Your task to perform on an android device: add a contact Image 0: 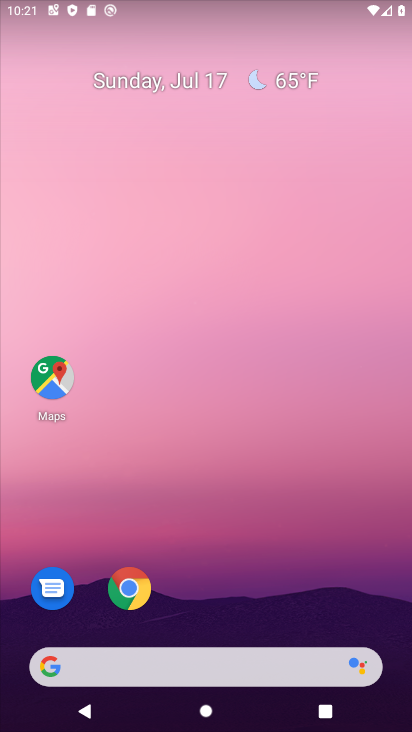
Step 0: drag from (238, 566) to (213, 118)
Your task to perform on an android device: add a contact Image 1: 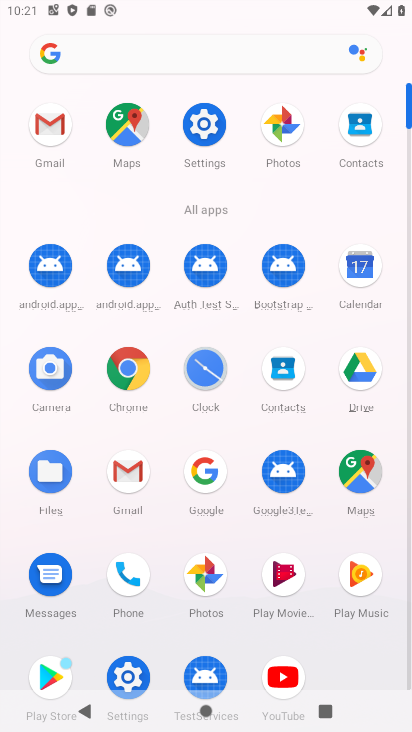
Step 1: click (276, 366)
Your task to perform on an android device: add a contact Image 2: 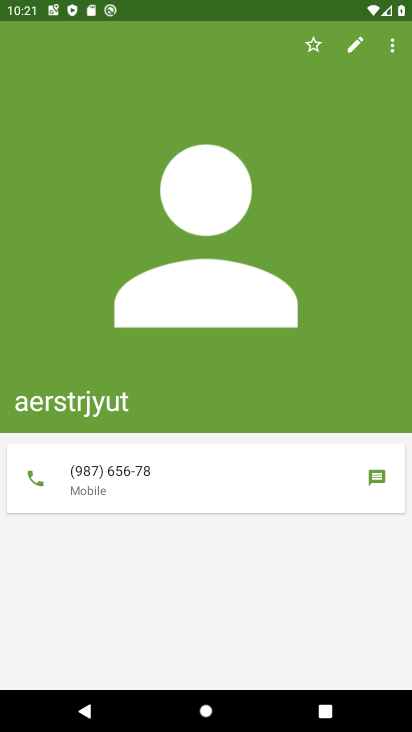
Step 2: click (393, 54)
Your task to perform on an android device: add a contact Image 3: 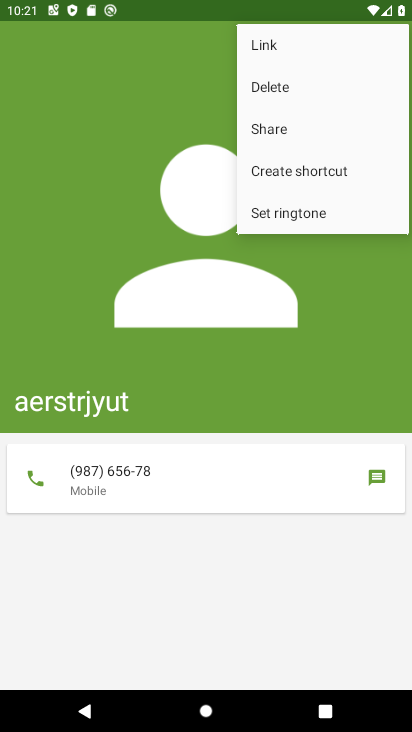
Step 3: click (284, 646)
Your task to perform on an android device: add a contact Image 4: 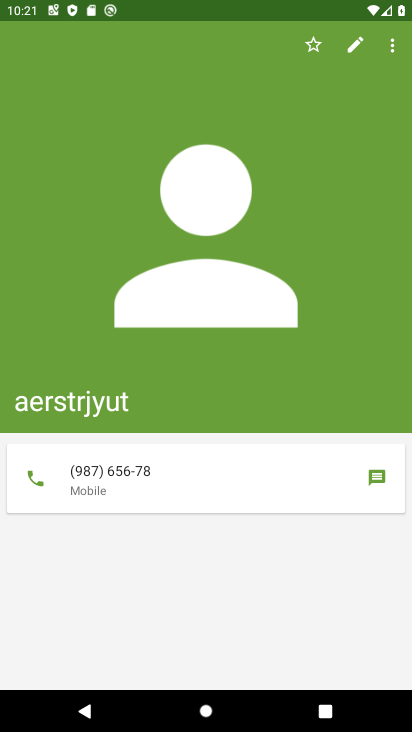
Step 4: press back button
Your task to perform on an android device: add a contact Image 5: 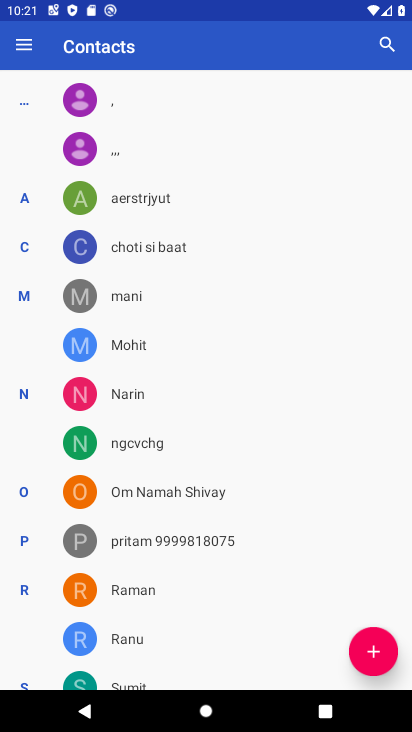
Step 5: click (368, 652)
Your task to perform on an android device: add a contact Image 6: 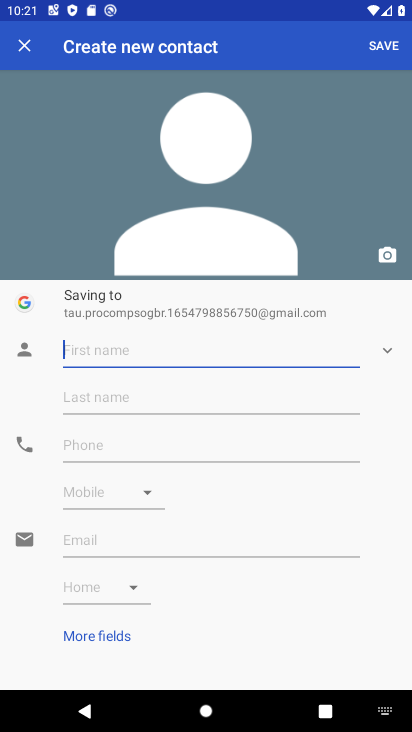
Step 6: click (144, 351)
Your task to perform on an android device: add a contact Image 7: 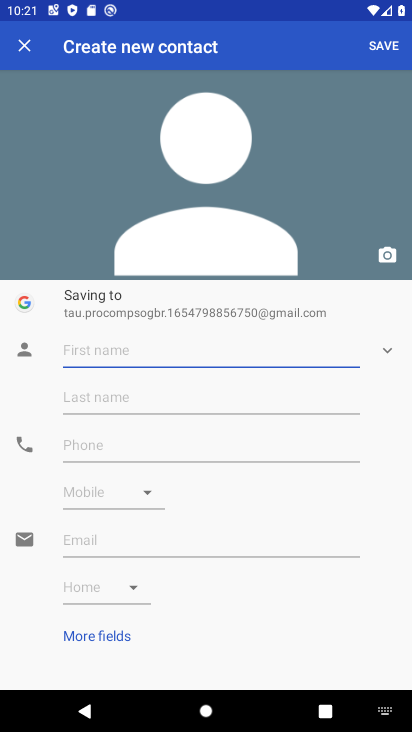
Step 7: type "aaaaaaaaa"
Your task to perform on an android device: add a contact Image 8: 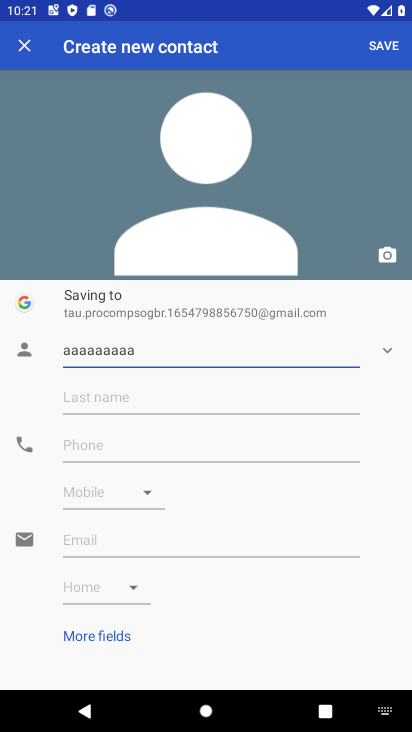
Step 8: click (96, 440)
Your task to perform on an android device: add a contact Image 9: 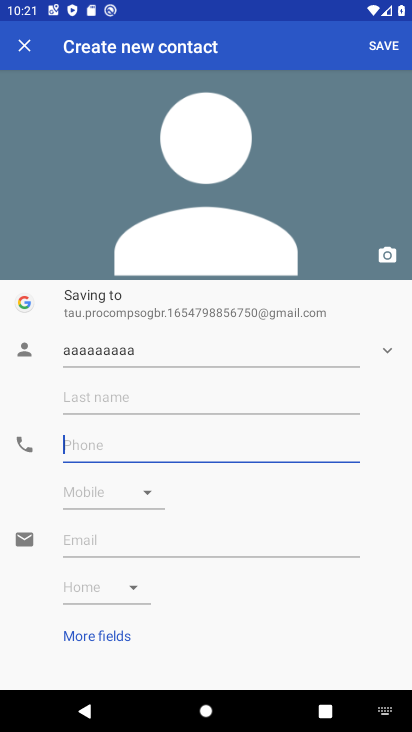
Step 9: type "2222222222222"
Your task to perform on an android device: add a contact Image 10: 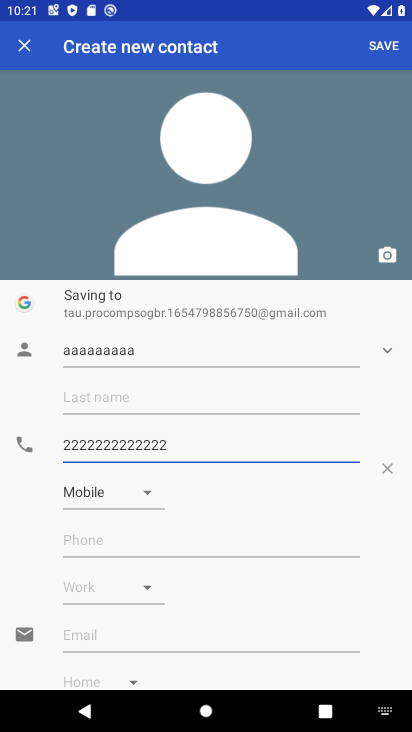
Step 10: click (383, 46)
Your task to perform on an android device: add a contact Image 11: 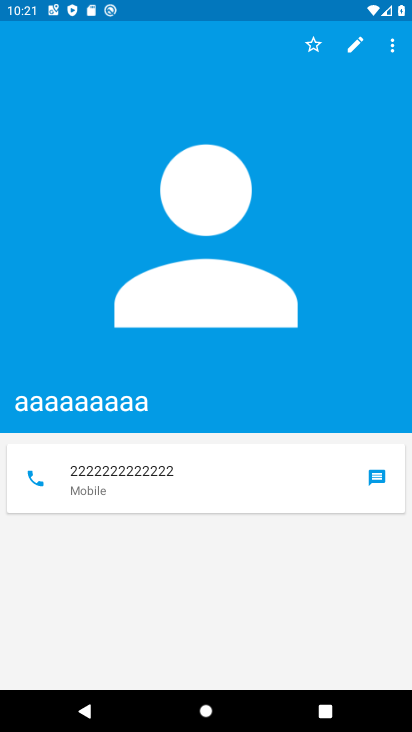
Step 11: task complete